Your task to perform on an android device: Go to calendar. Show me events next week Image 0: 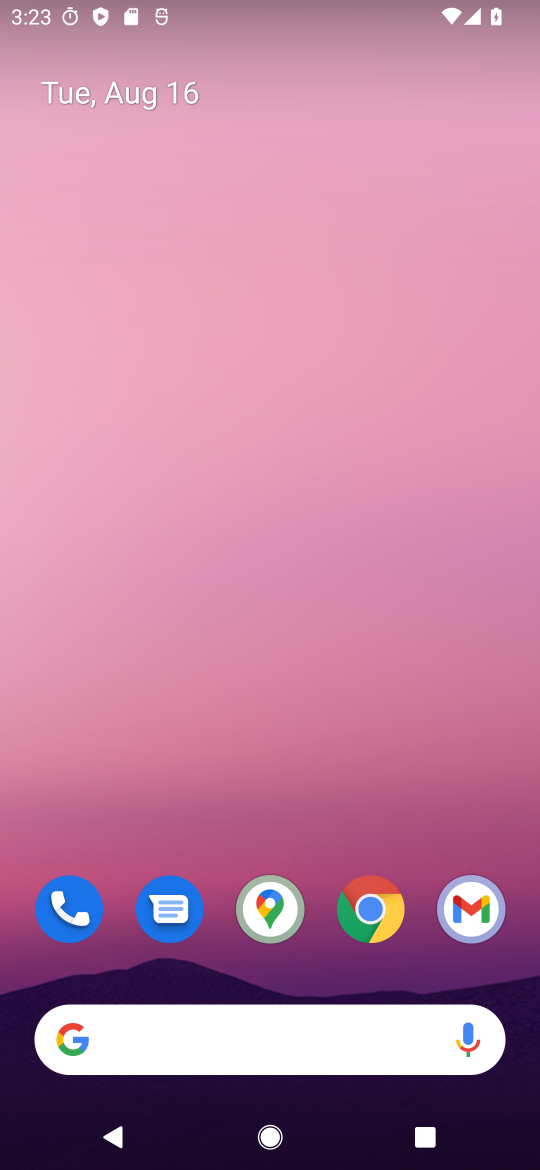
Step 0: drag from (232, 915) to (240, 12)
Your task to perform on an android device: Go to calendar. Show me events next week Image 1: 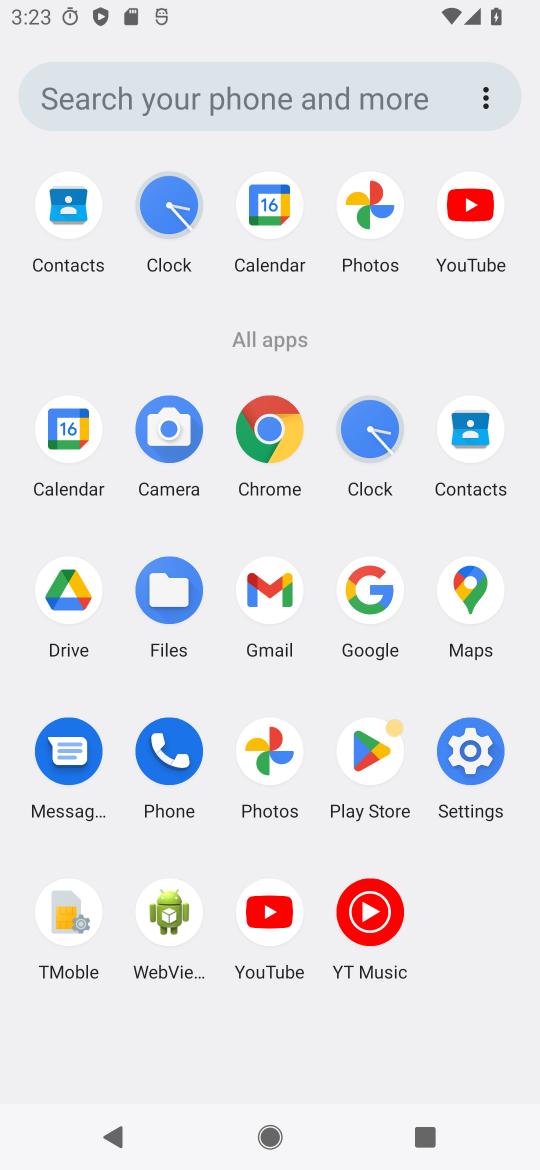
Step 1: click (58, 434)
Your task to perform on an android device: Go to calendar. Show me events next week Image 2: 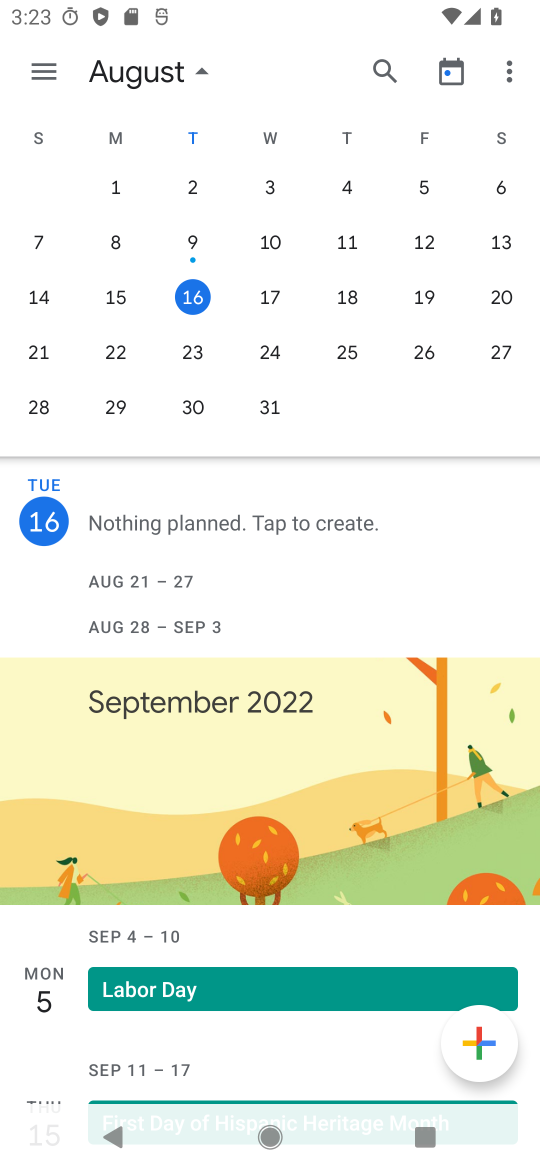
Step 2: click (42, 66)
Your task to perform on an android device: Go to calendar. Show me events next week Image 3: 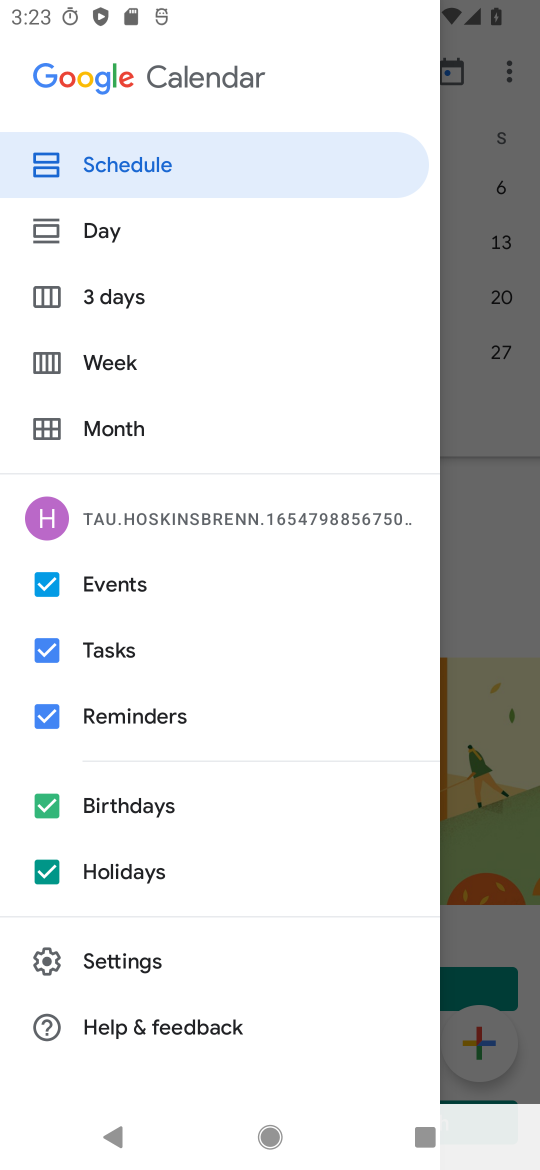
Step 3: click (116, 361)
Your task to perform on an android device: Go to calendar. Show me events next week Image 4: 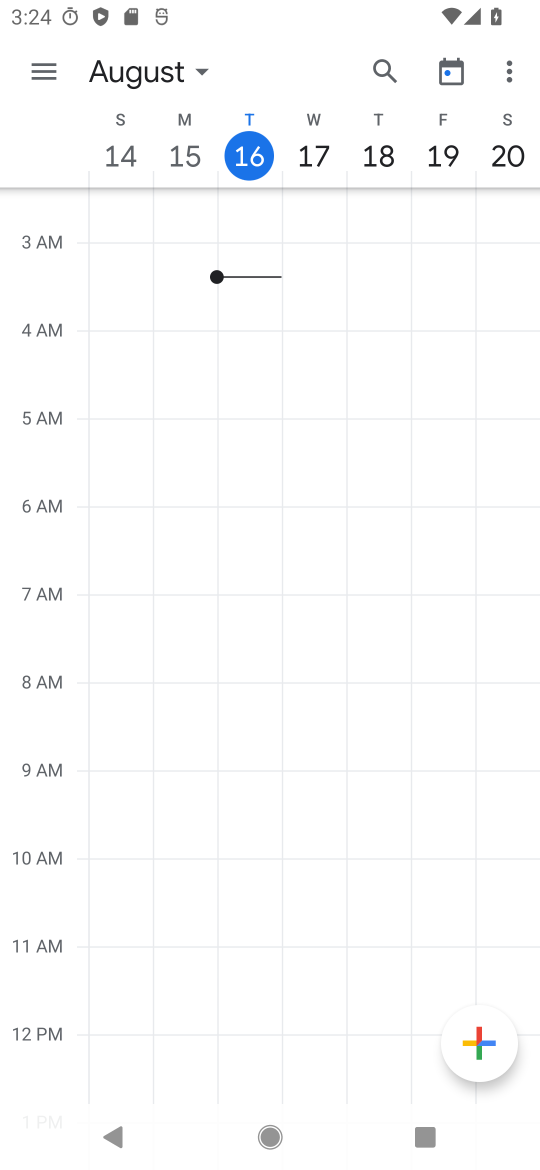
Step 4: click (154, 69)
Your task to perform on an android device: Go to calendar. Show me events next week Image 5: 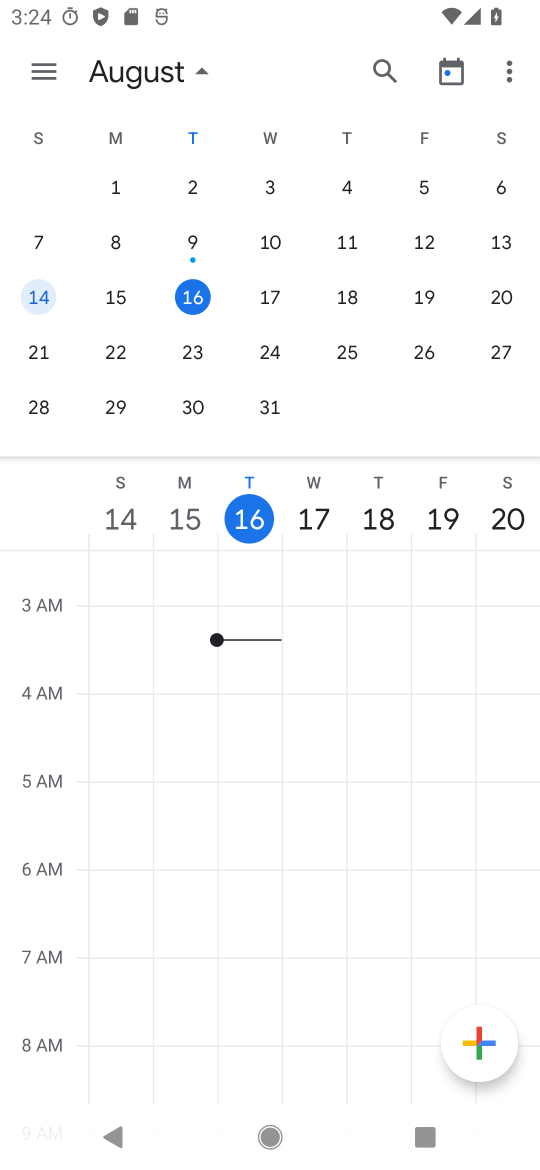
Step 5: click (35, 362)
Your task to perform on an android device: Go to calendar. Show me events next week Image 6: 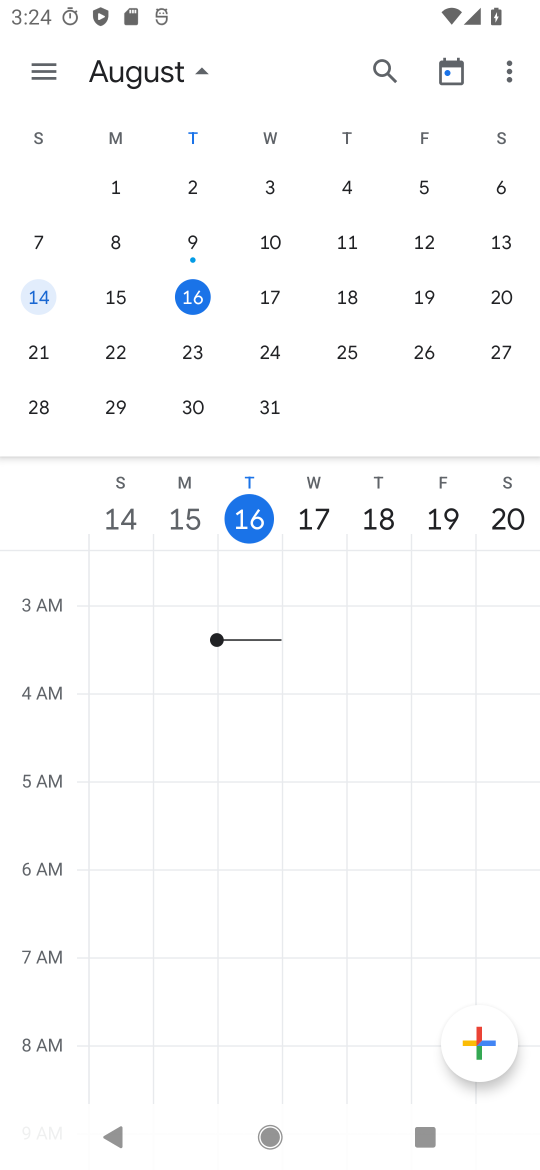
Step 6: click (35, 362)
Your task to perform on an android device: Go to calendar. Show me events next week Image 7: 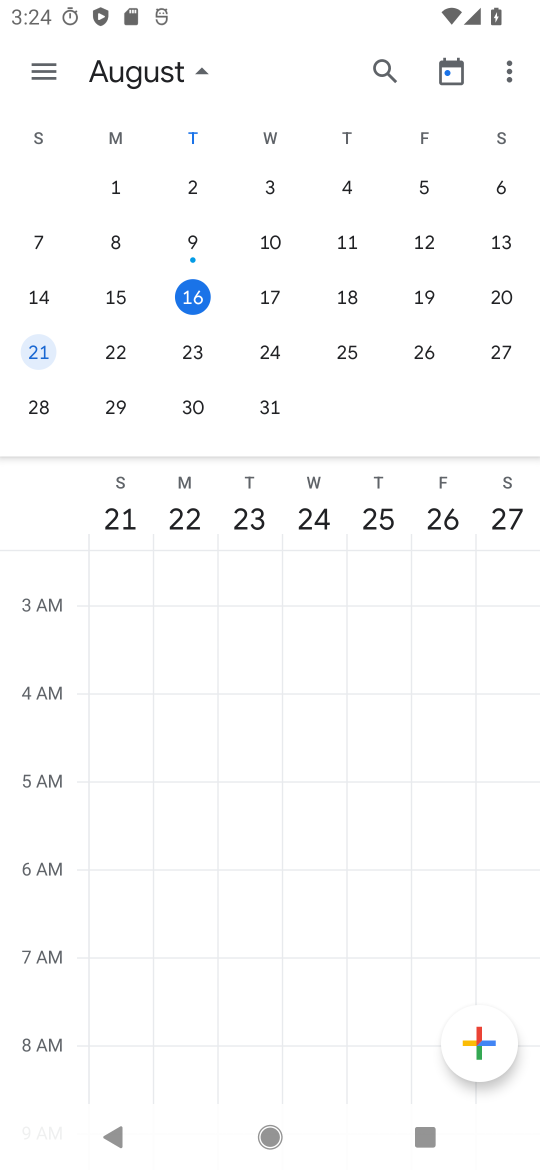
Step 7: task complete